Your task to perform on an android device: Open eBay Image 0: 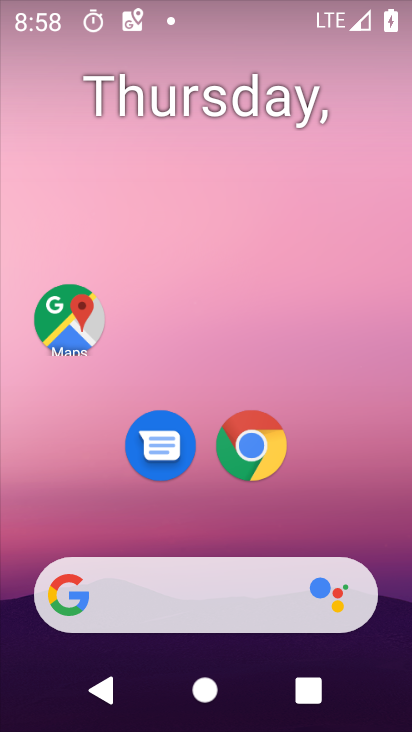
Step 0: drag from (207, 515) to (227, 104)
Your task to perform on an android device: Open eBay Image 1: 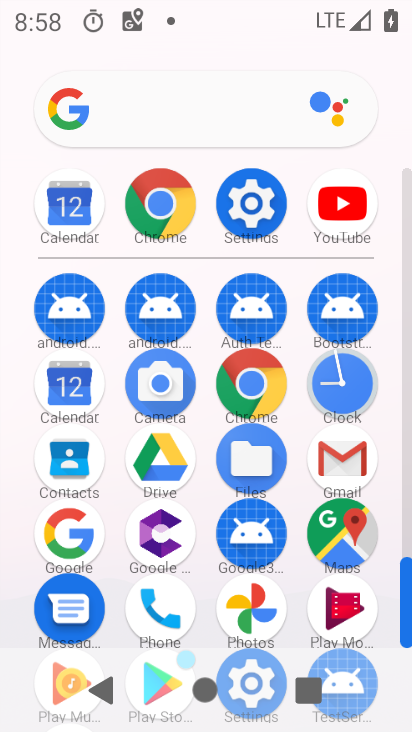
Step 1: click (191, 111)
Your task to perform on an android device: Open eBay Image 2: 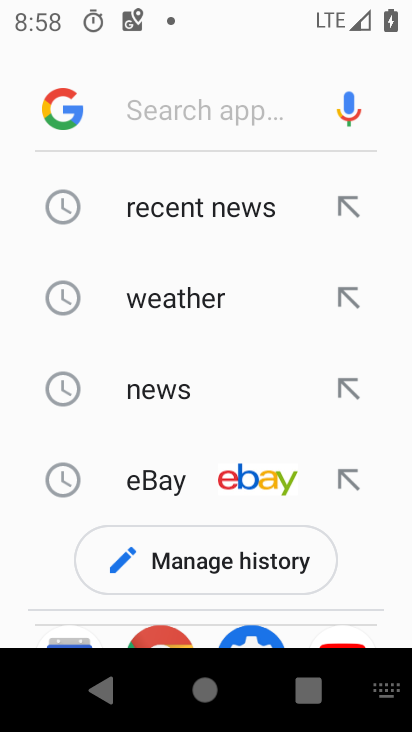
Step 2: click (190, 465)
Your task to perform on an android device: Open eBay Image 3: 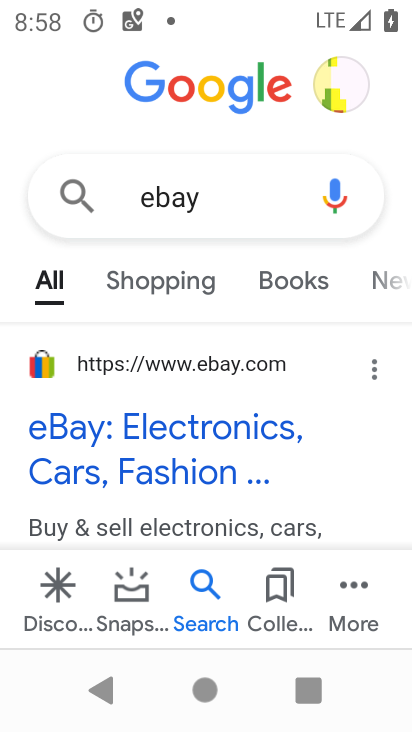
Step 3: click (111, 429)
Your task to perform on an android device: Open eBay Image 4: 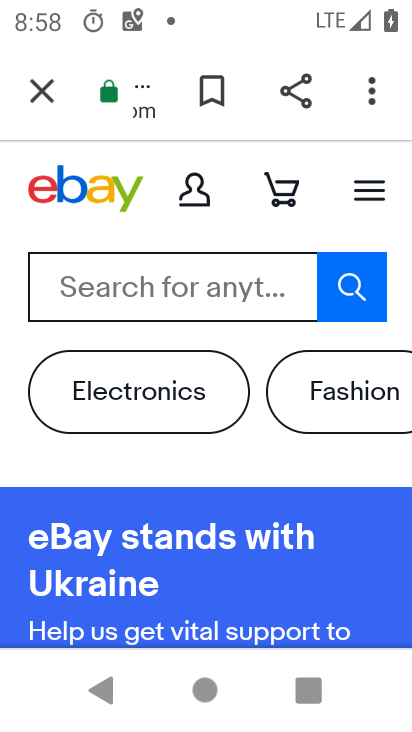
Step 4: task complete